Your task to perform on an android device: set an alarm Image 0: 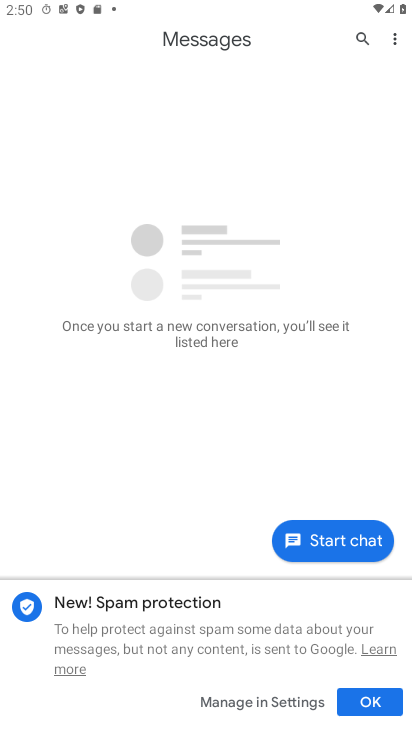
Step 0: press home button
Your task to perform on an android device: set an alarm Image 1: 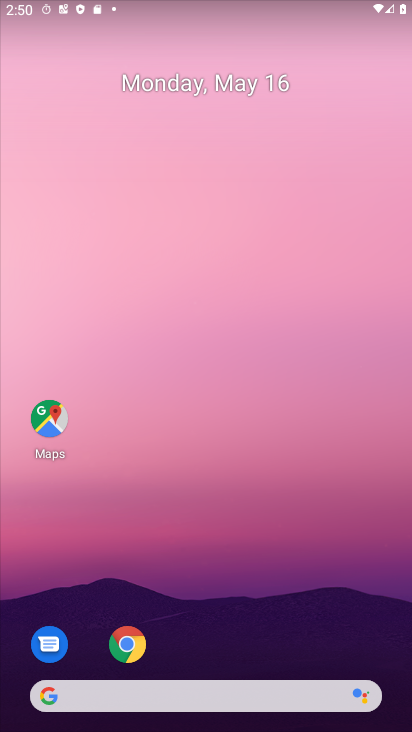
Step 1: drag from (292, 577) to (310, 103)
Your task to perform on an android device: set an alarm Image 2: 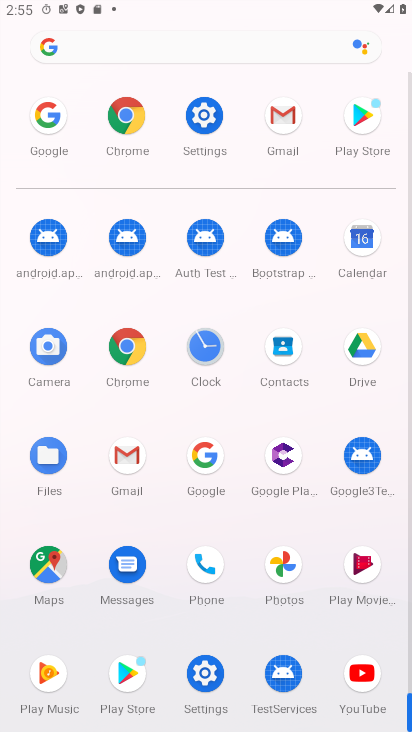
Step 2: click (224, 350)
Your task to perform on an android device: set an alarm Image 3: 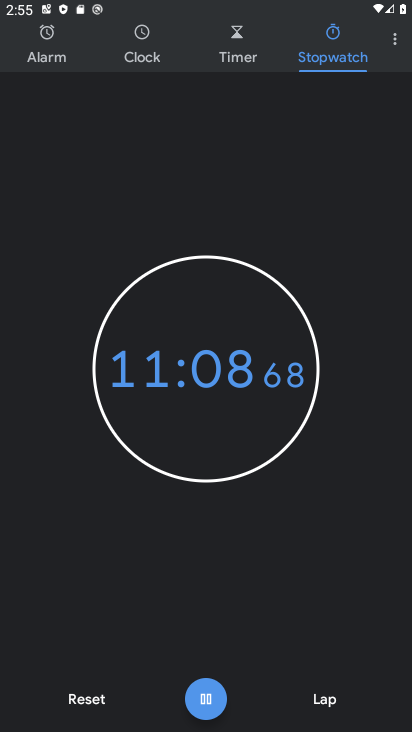
Step 3: click (59, 50)
Your task to perform on an android device: set an alarm Image 4: 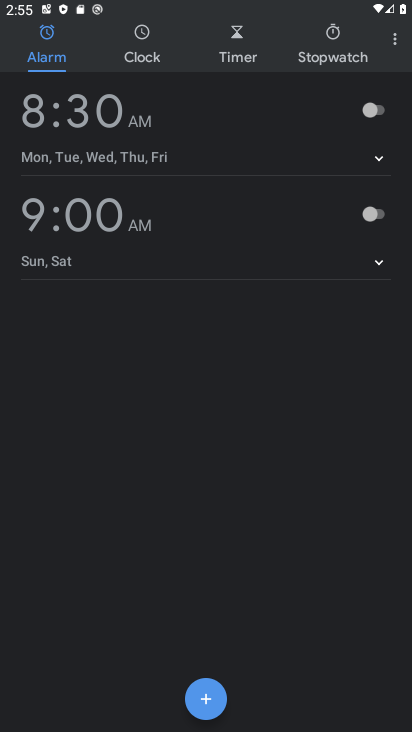
Step 4: click (210, 698)
Your task to perform on an android device: set an alarm Image 5: 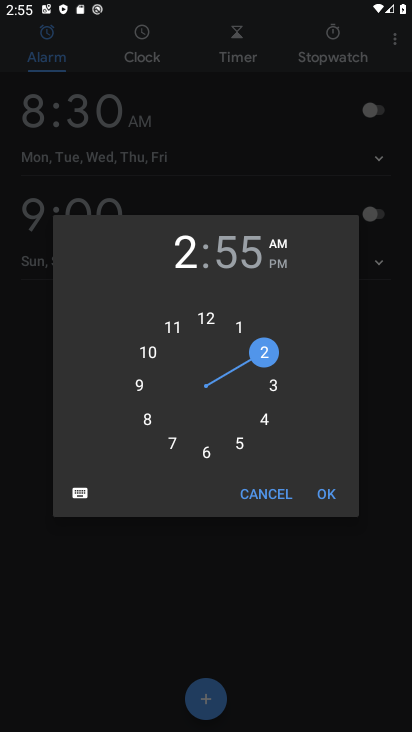
Step 5: click (336, 496)
Your task to perform on an android device: set an alarm Image 6: 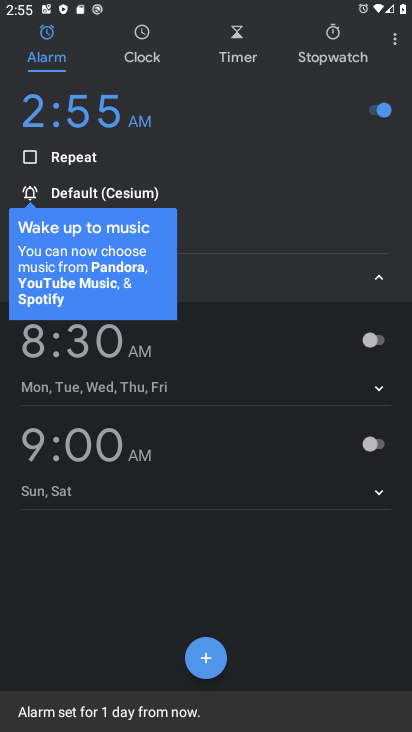
Step 6: task complete